Your task to perform on an android device: When is my next meeting? Image 0: 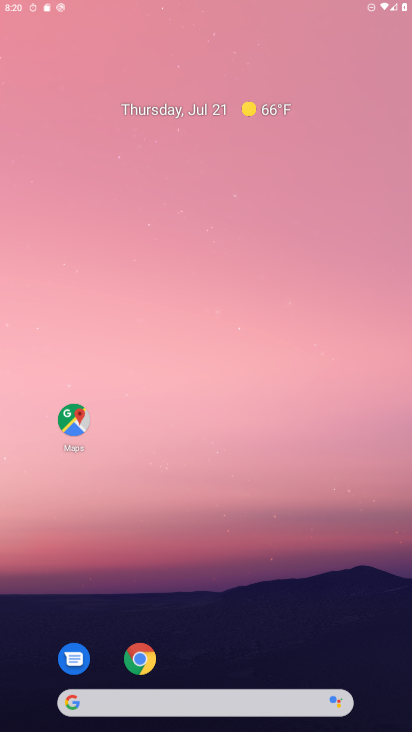
Step 0: drag from (199, 666) to (235, 203)
Your task to perform on an android device: When is my next meeting? Image 1: 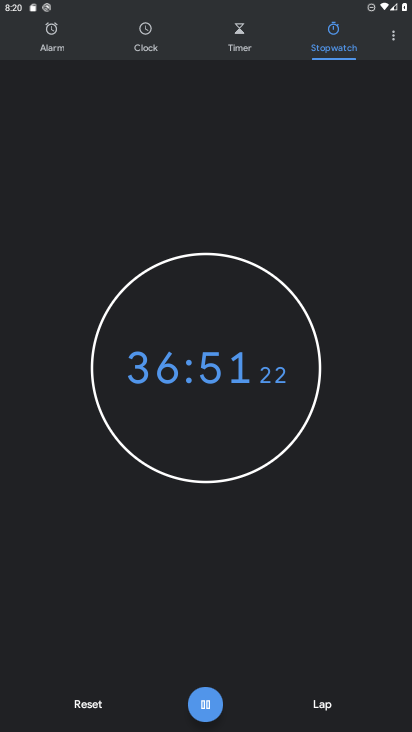
Step 1: press home button
Your task to perform on an android device: When is my next meeting? Image 2: 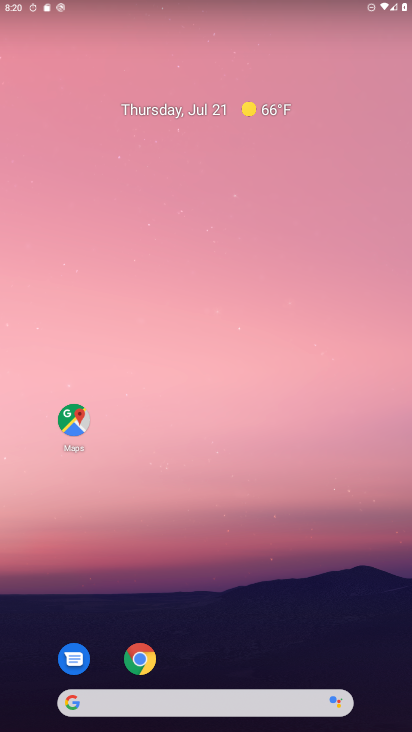
Step 2: drag from (199, 675) to (212, 101)
Your task to perform on an android device: When is my next meeting? Image 3: 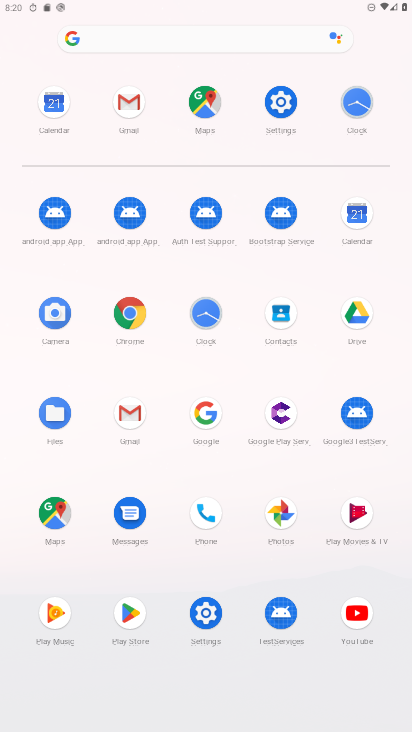
Step 3: click (355, 216)
Your task to perform on an android device: When is my next meeting? Image 4: 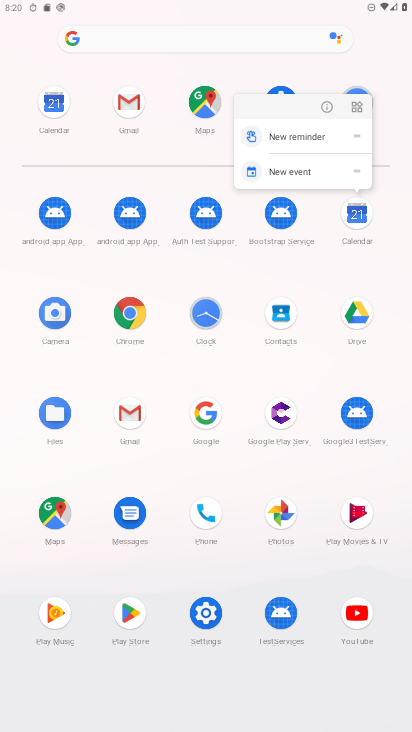
Step 4: click (328, 106)
Your task to perform on an android device: When is my next meeting? Image 5: 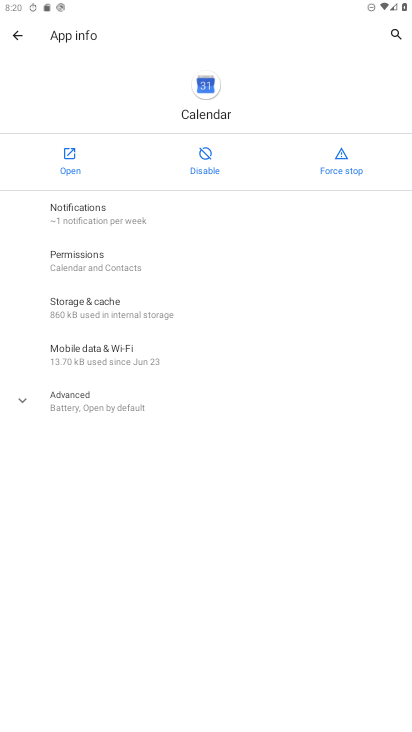
Step 5: click (65, 160)
Your task to perform on an android device: When is my next meeting? Image 6: 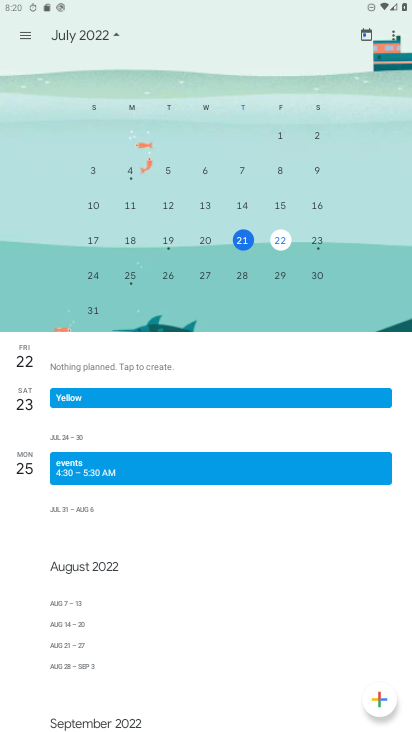
Step 6: click (247, 245)
Your task to perform on an android device: When is my next meeting? Image 7: 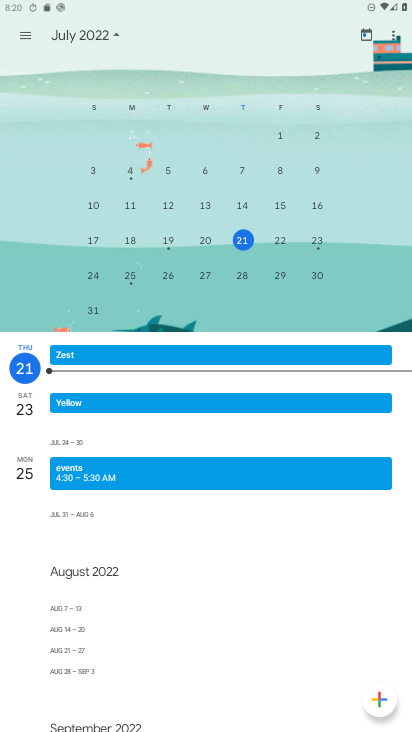
Step 7: task complete